Your task to perform on an android device: Open a new Chrome window Image 0: 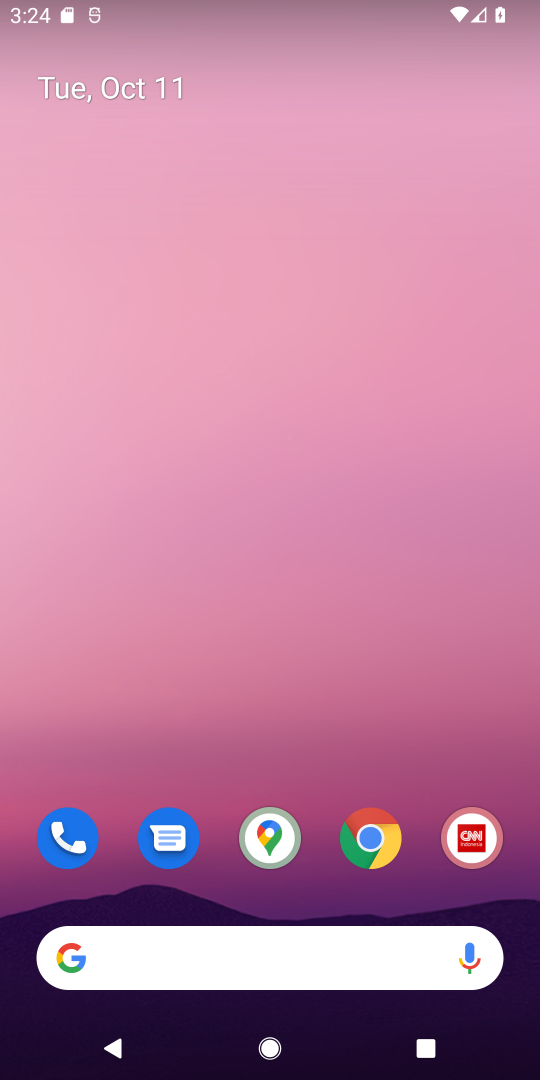
Step 0: click (349, 861)
Your task to perform on an android device: Open a new Chrome window Image 1: 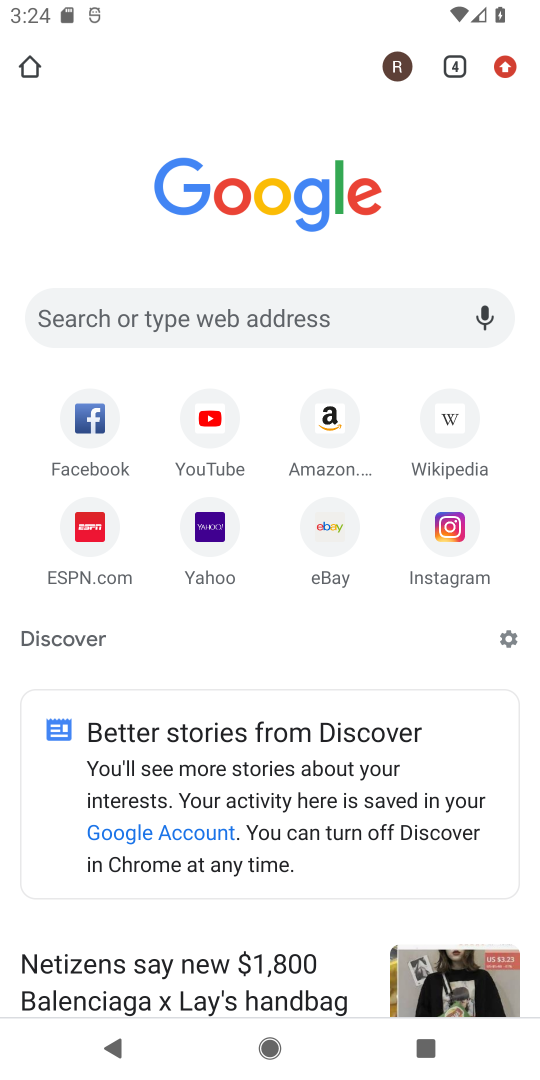
Step 1: click (454, 58)
Your task to perform on an android device: Open a new Chrome window Image 2: 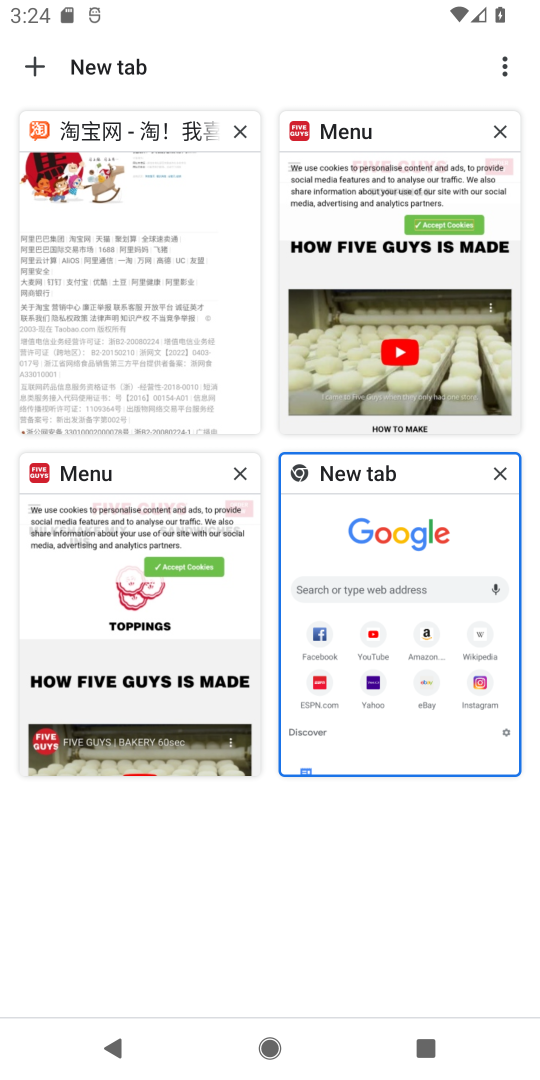
Step 2: click (28, 67)
Your task to perform on an android device: Open a new Chrome window Image 3: 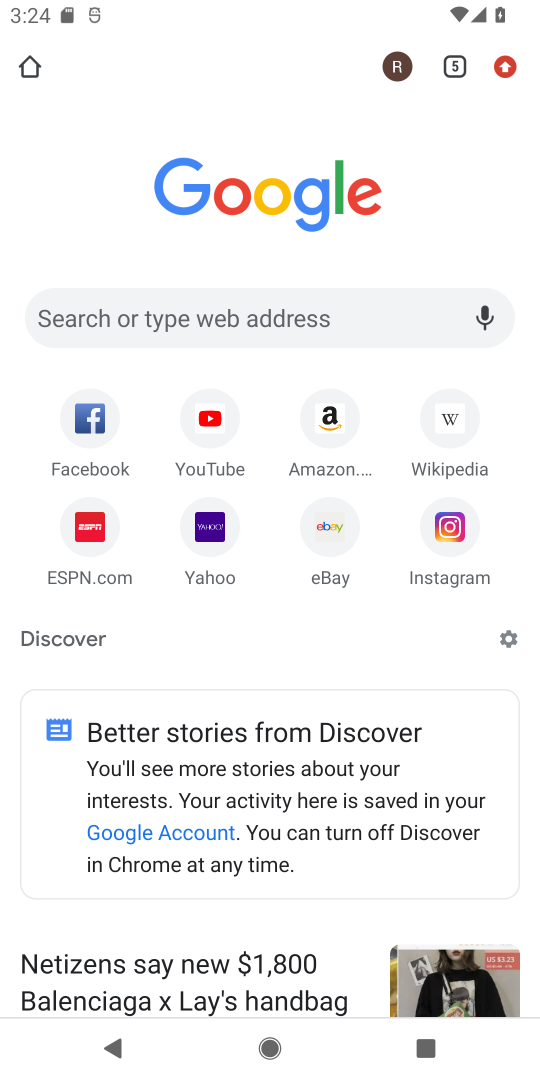
Step 3: click (265, 328)
Your task to perform on an android device: Open a new Chrome window Image 4: 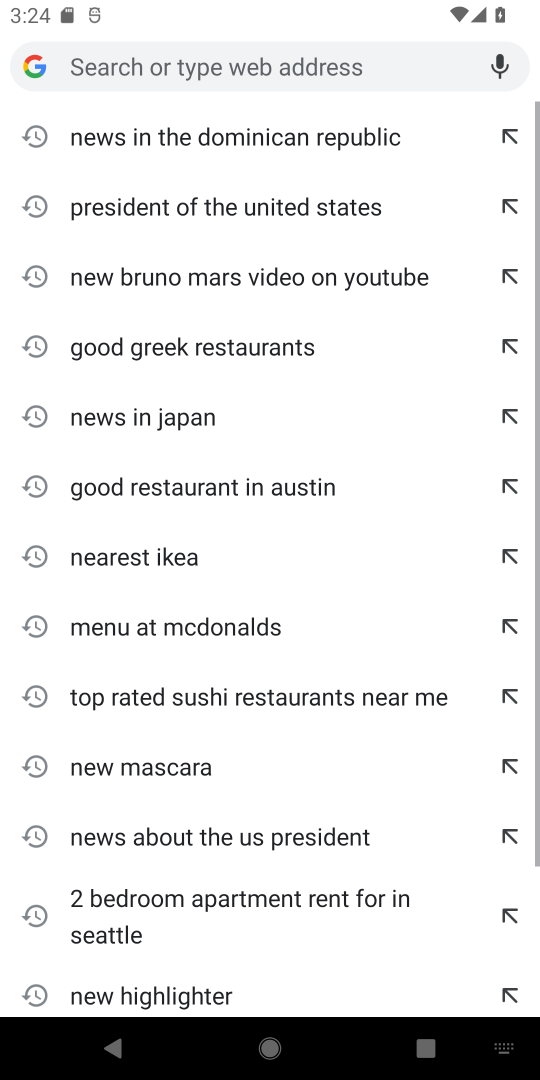
Step 4: task complete